Your task to perform on an android device: Show me productivity apps on the Play Store Image 0: 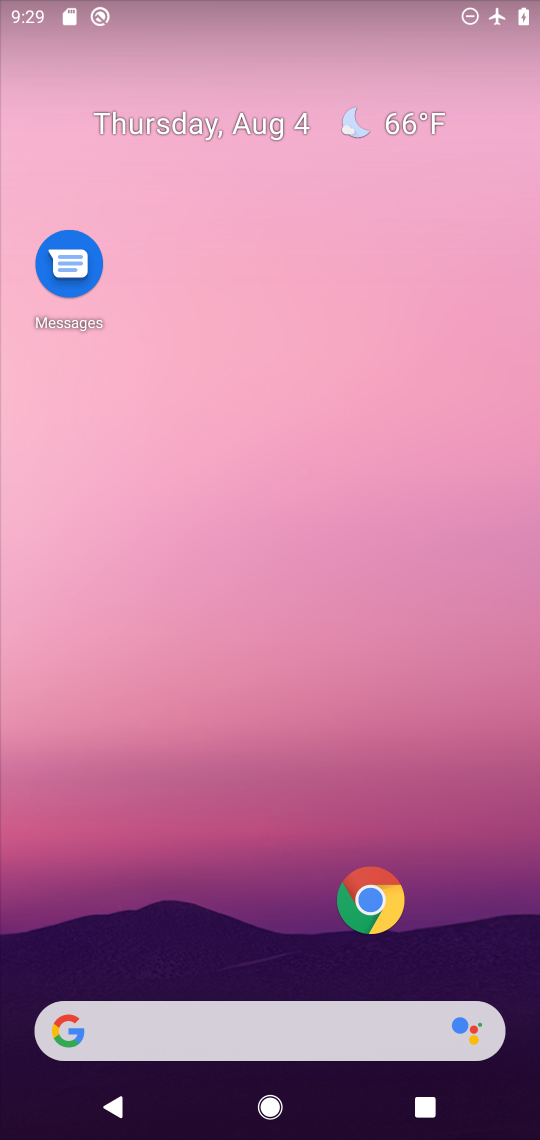
Step 0: drag from (239, 1028) to (237, 196)
Your task to perform on an android device: Show me productivity apps on the Play Store Image 1: 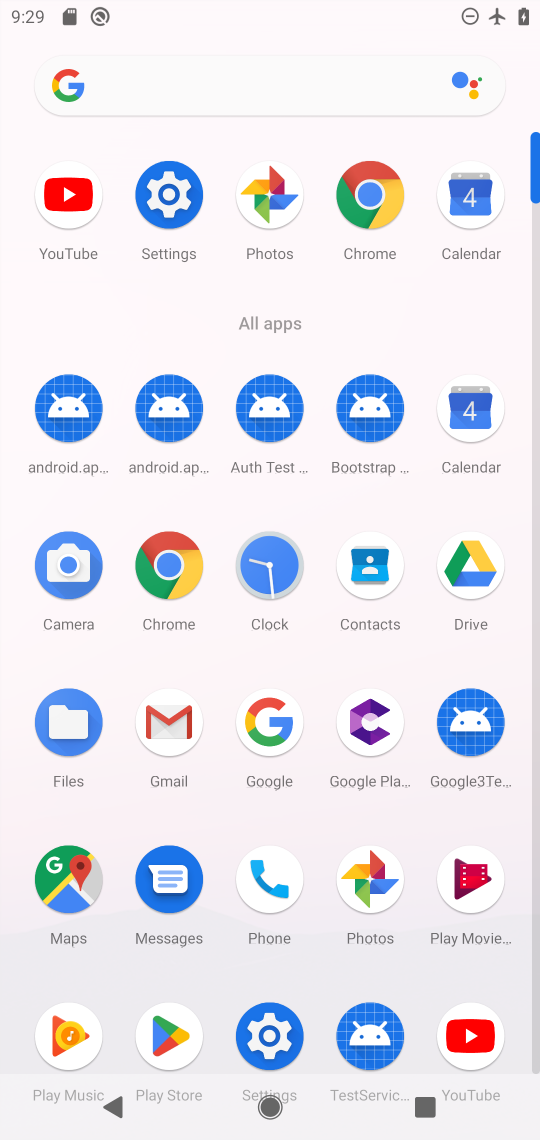
Step 1: click (158, 1035)
Your task to perform on an android device: Show me productivity apps on the Play Store Image 2: 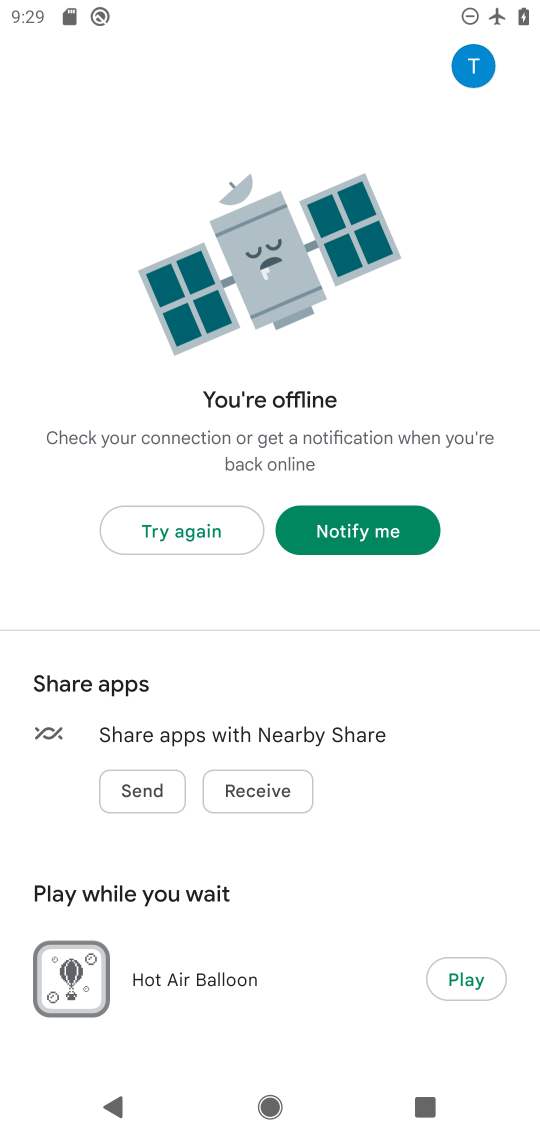
Step 2: task complete